Your task to perform on an android device: turn on sleep mode Image 0: 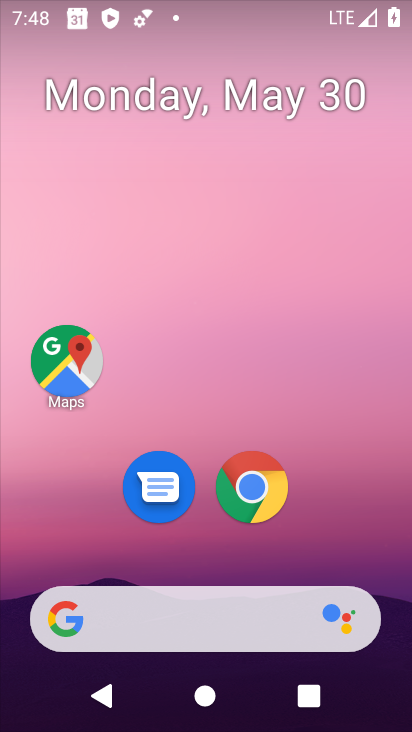
Step 0: click (322, 400)
Your task to perform on an android device: turn on sleep mode Image 1: 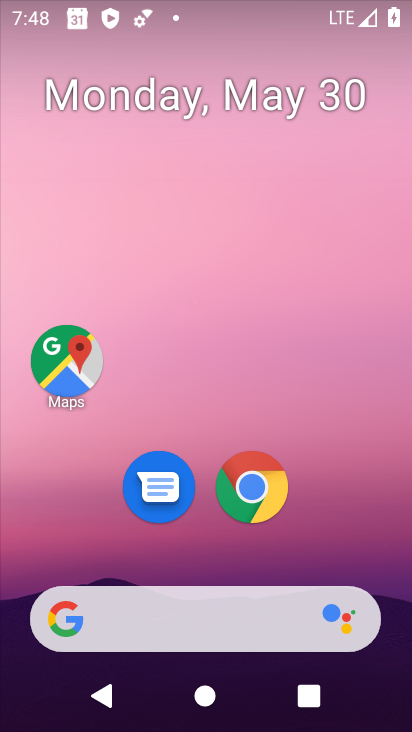
Step 1: click (382, 402)
Your task to perform on an android device: turn on sleep mode Image 2: 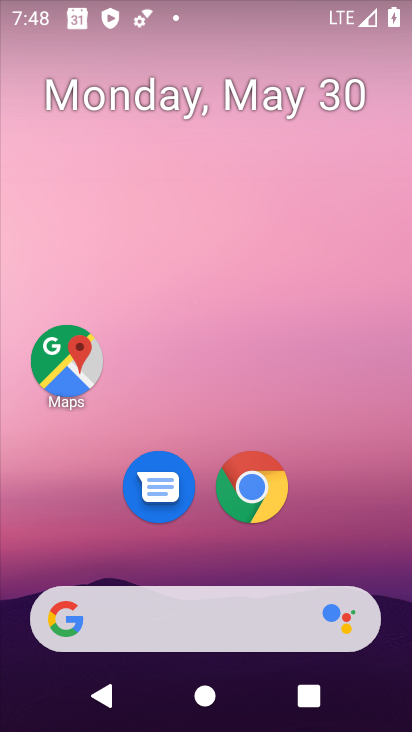
Step 2: drag from (382, 703) to (309, 27)
Your task to perform on an android device: turn on sleep mode Image 3: 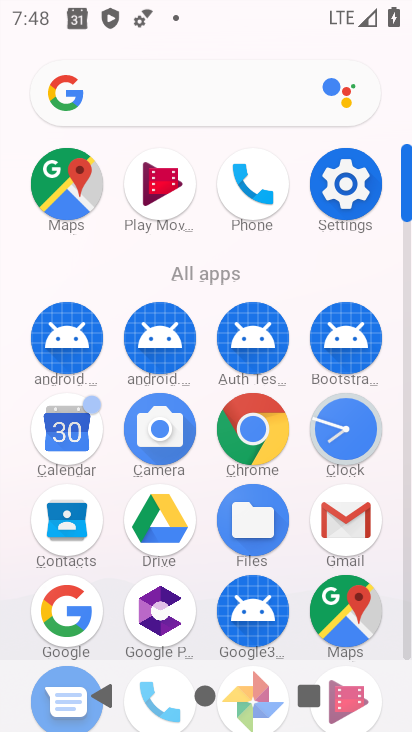
Step 3: click (353, 170)
Your task to perform on an android device: turn on sleep mode Image 4: 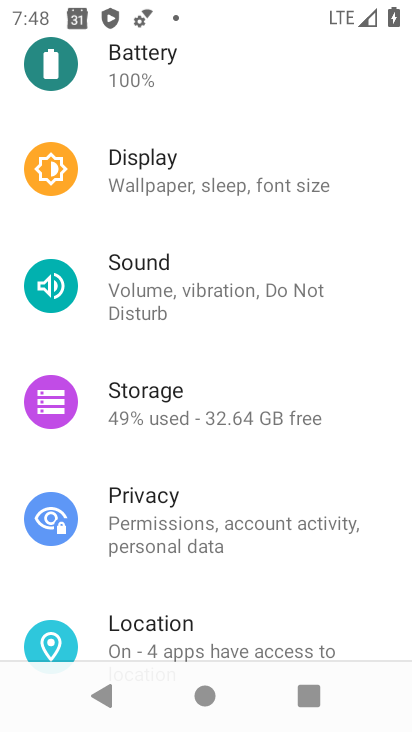
Step 4: click (152, 188)
Your task to perform on an android device: turn on sleep mode Image 5: 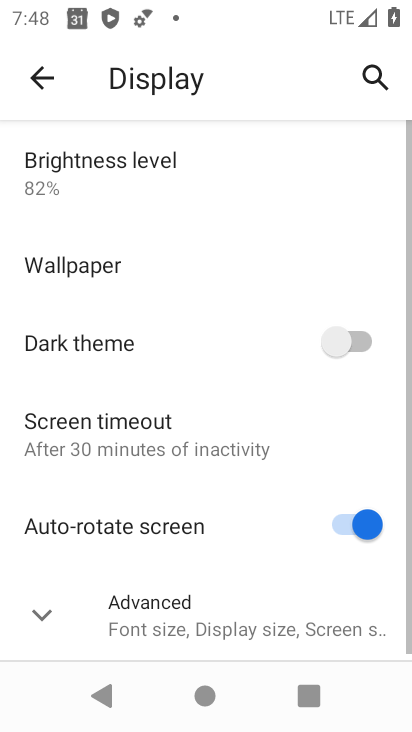
Step 5: click (93, 426)
Your task to perform on an android device: turn on sleep mode Image 6: 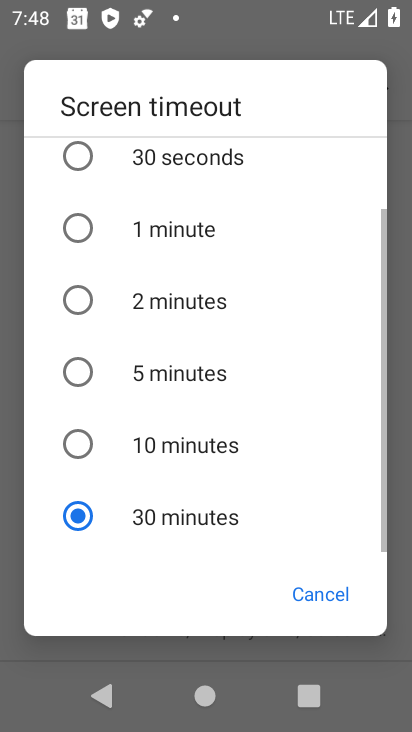
Step 6: task complete